Your task to perform on an android device: set an alarm Image 0: 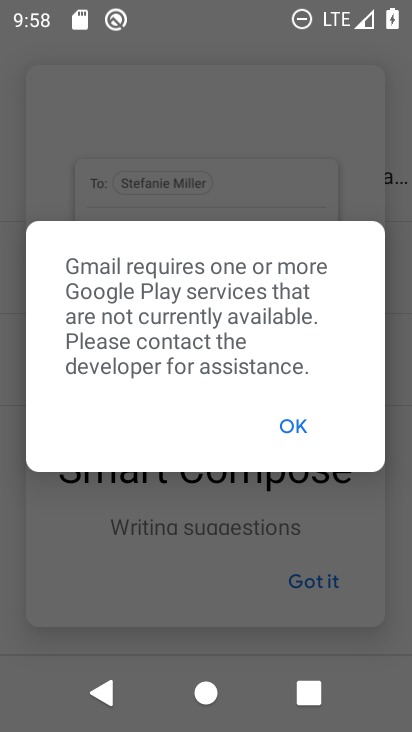
Step 0: press home button
Your task to perform on an android device: set an alarm Image 1: 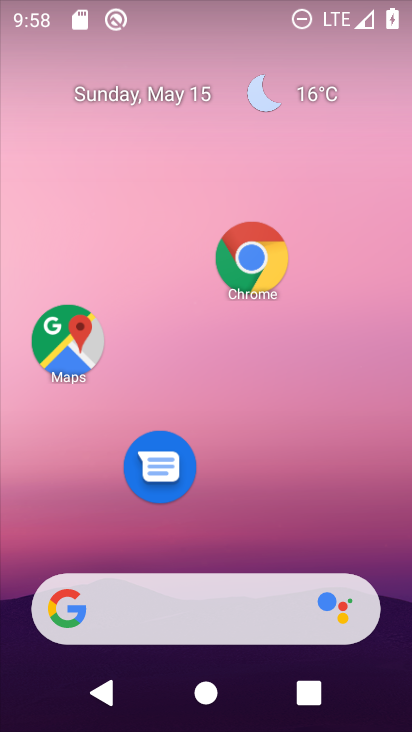
Step 1: drag from (279, 528) to (322, 56)
Your task to perform on an android device: set an alarm Image 2: 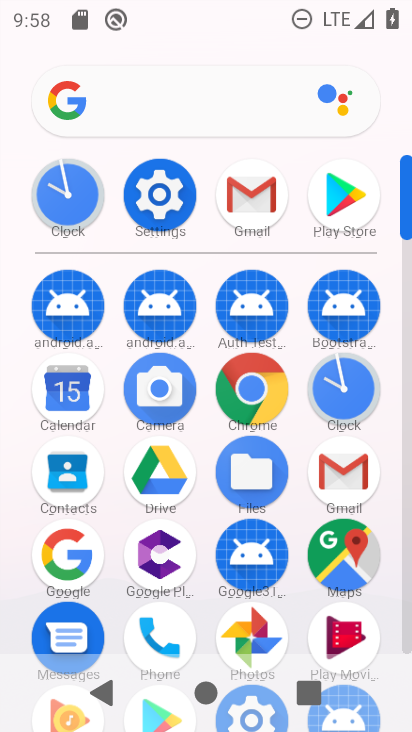
Step 2: click (67, 187)
Your task to perform on an android device: set an alarm Image 3: 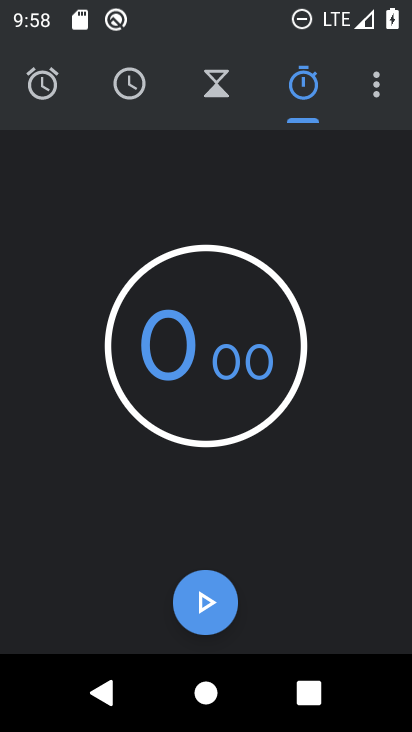
Step 3: click (45, 87)
Your task to perform on an android device: set an alarm Image 4: 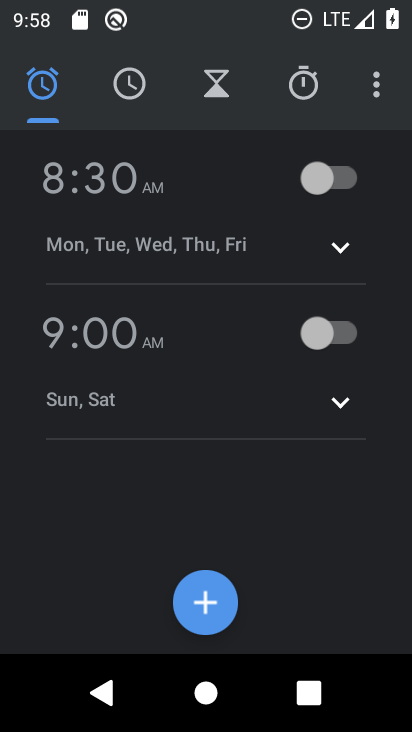
Step 4: click (349, 185)
Your task to perform on an android device: set an alarm Image 5: 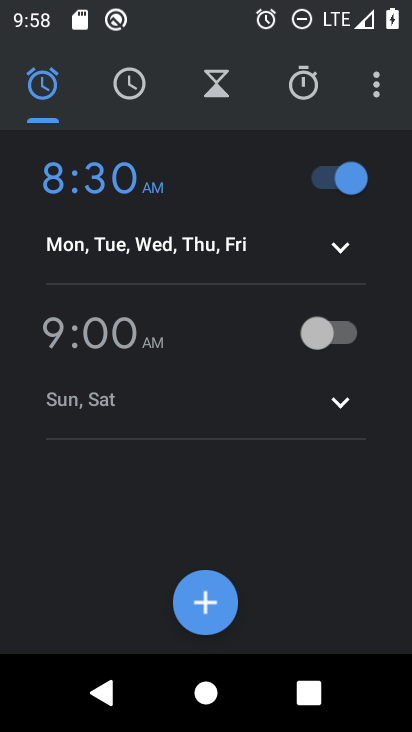
Step 5: task complete